Your task to perform on an android device: delete location history Image 0: 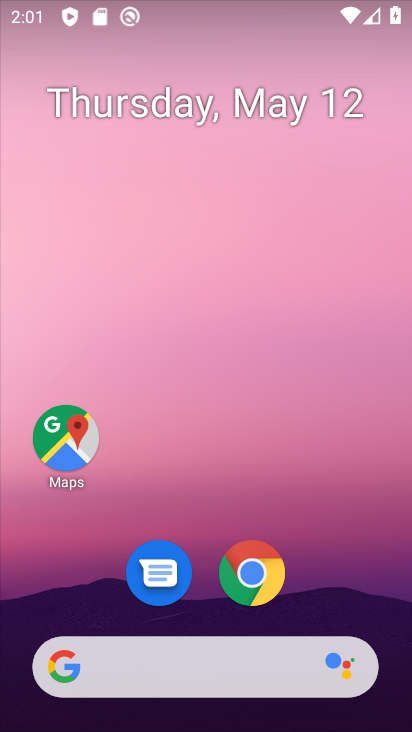
Step 0: click (229, 66)
Your task to perform on an android device: delete location history Image 1: 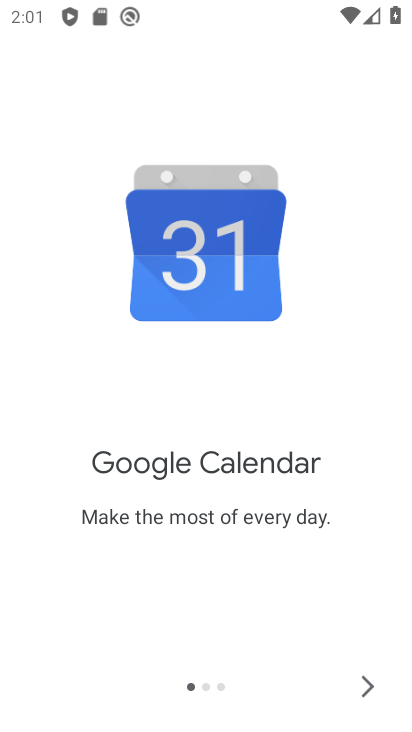
Step 1: press home button
Your task to perform on an android device: delete location history Image 2: 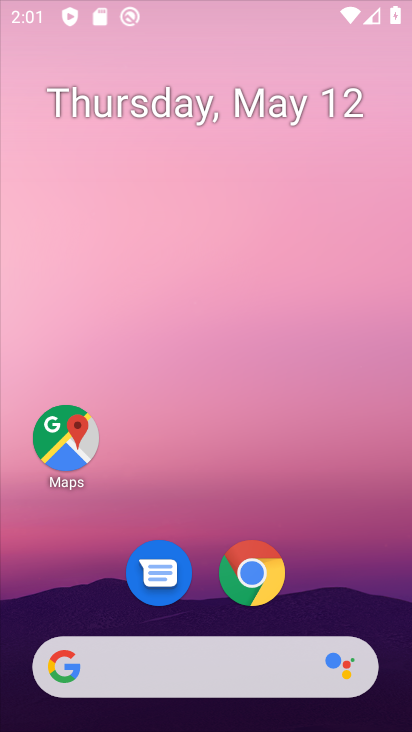
Step 2: drag from (193, 643) to (317, 35)
Your task to perform on an android device: delete location history Image 3: 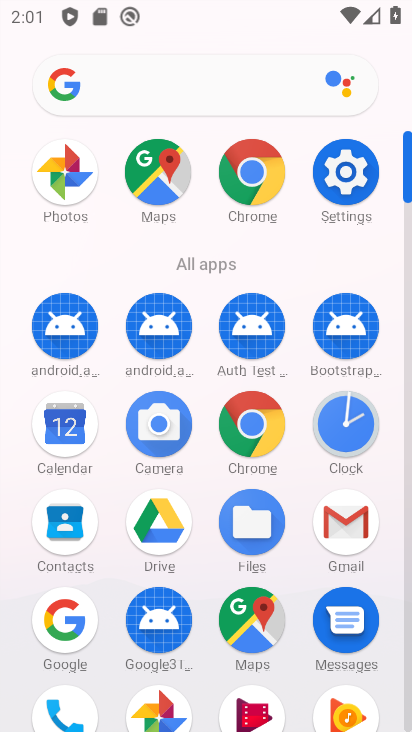
Step 3: drag from (202, 661) to (203, 263)
Your task to perform on an android device: delete location history Image 4: 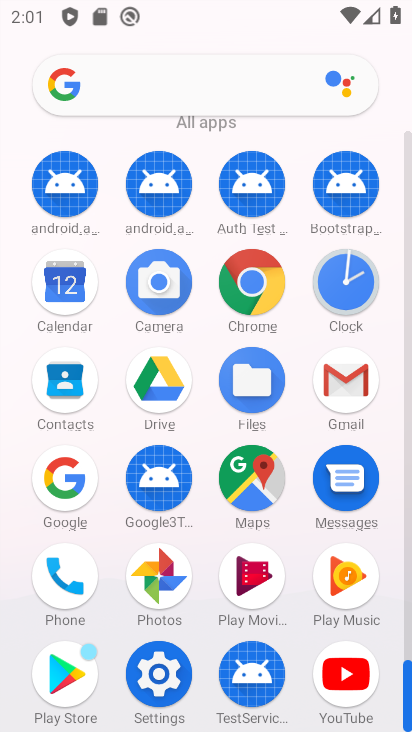
Step 4: click (161, 671)
Your task to perform on an android device: delete location history Image 5: 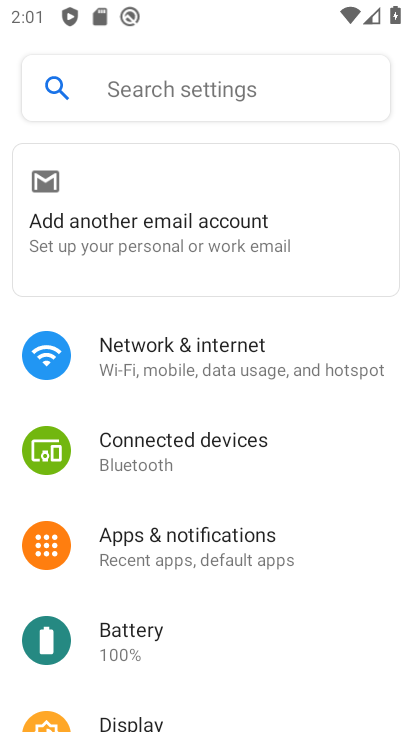
Step 5: drag from (211, 620) to (329, 156)
Your task to perform on an android device: delete location history Image 6: 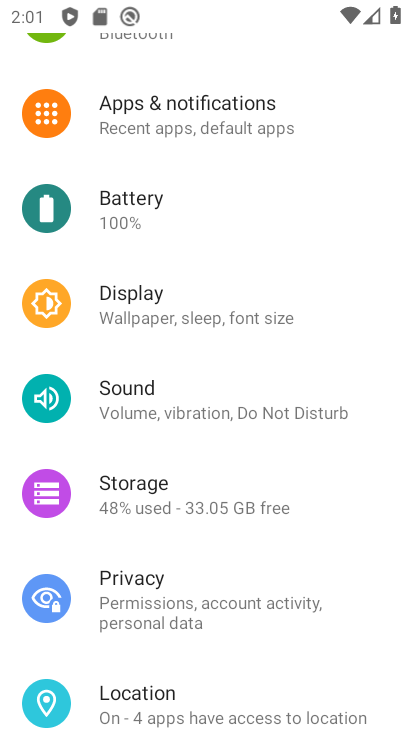
Step 6: drag from (276, 517) to (316, 124)
Your task to perform on an android device: delete location history Image 7: 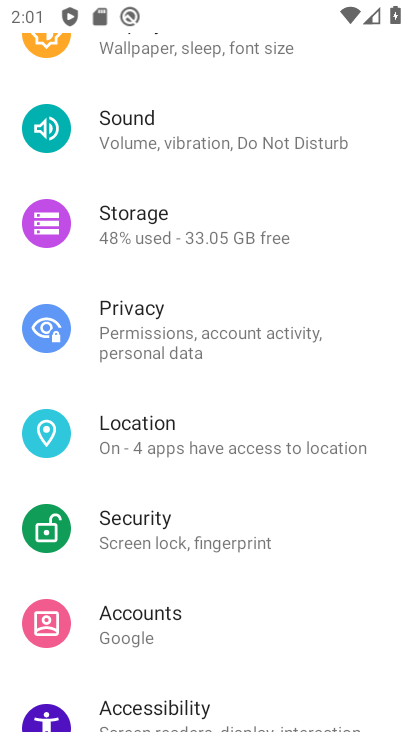
Step 7: click (187, 433)
Your task to perform on an android device: delete location history Image 8: 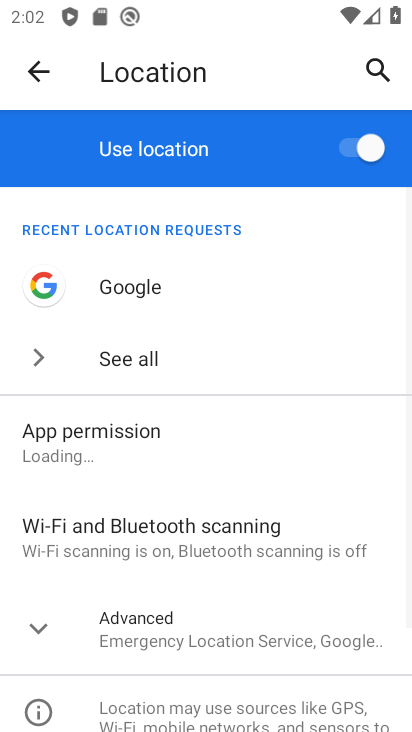
Step 8: drag from (232, 591) to (361, 122)
Your task to perform on an android device: delete location history Image 9: 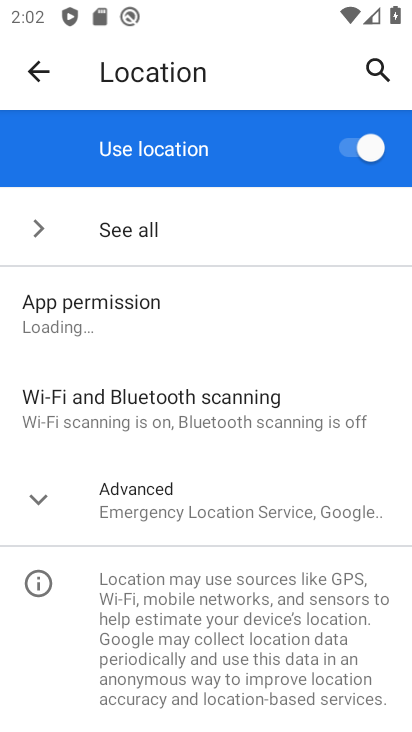
Step 9: click (190, 514)
Your task to perform on an android device: delete location history Image 10: 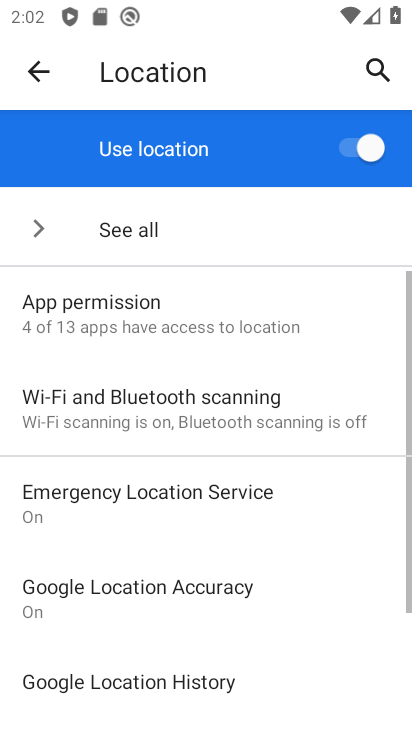
Step 10: drag from (229, 518) to (330, 148)
Your task to perform on an android device: delete location history Image 11: 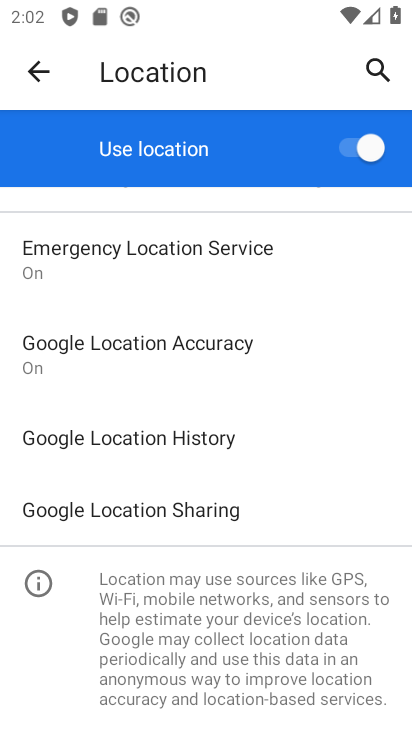
Step 11: click (221, 445)
Your task to perform on an android device: delete location history Image 12: 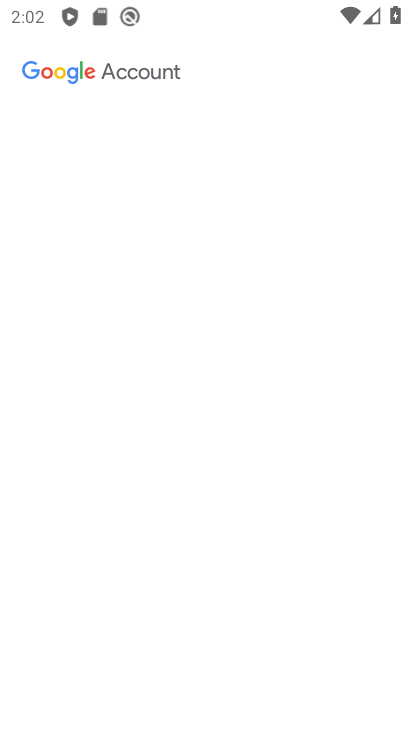
Step 12: drag from (232, 550) to (313, 186)
Your task to perform on an android device: delete location history Image 13: 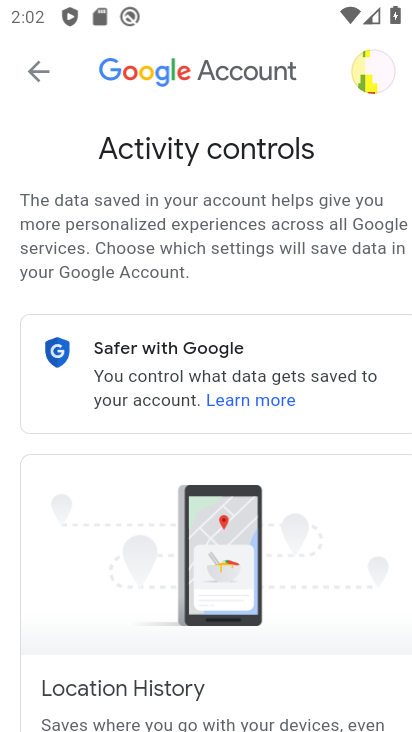
Step 13: drag from (196, 552) to (273, 25)
Your task to perform on an android device: delete location history Image 14: 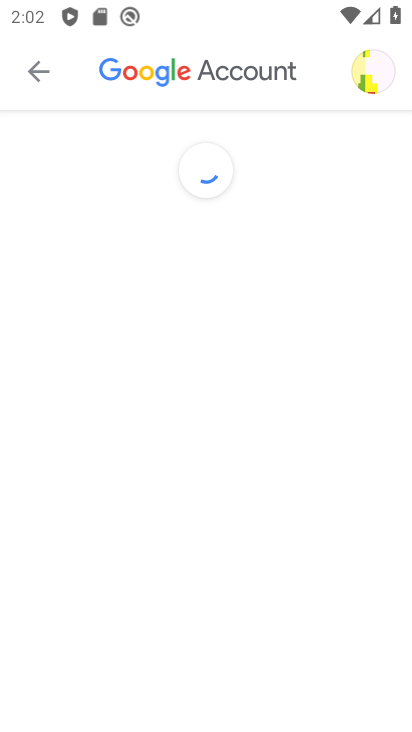
Step 14: drag from (242, 380) to (290, 39)
Your task to perform on an android device: delete location history Image 15: 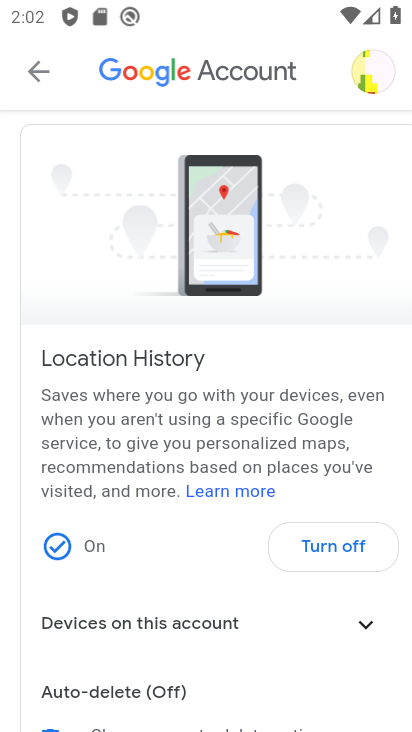
Step 15: drag from (204, 596) to (226, 325)
Your task to perform on an android device: delete location history Image 16: 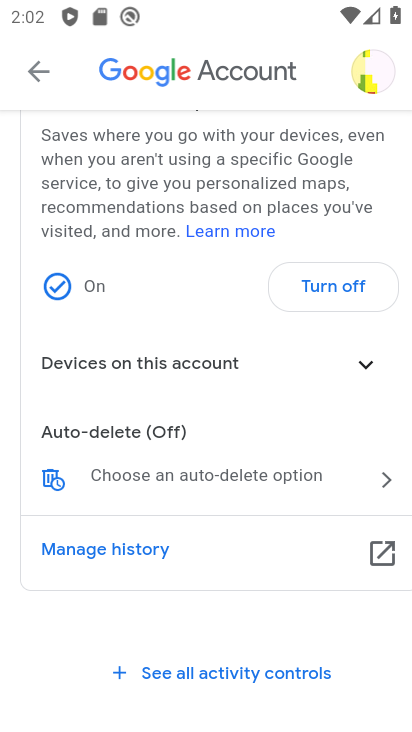
Step 16: click (64, 473)
Your task to perform on an android device: delete location history Image 17: 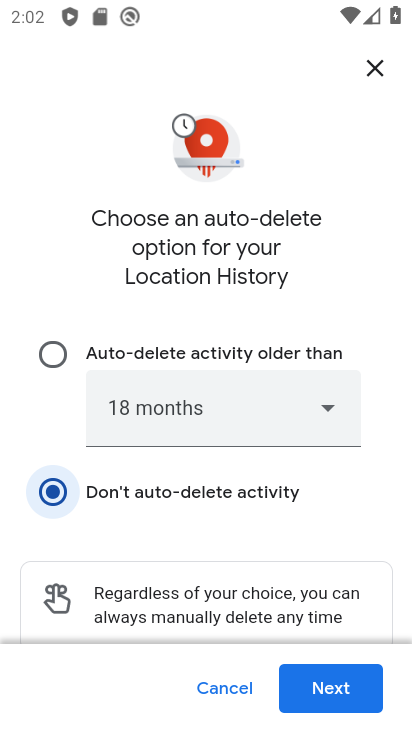
Step 17: click (298, 680)
Your task to perform on an android device: delete location history Image 18: 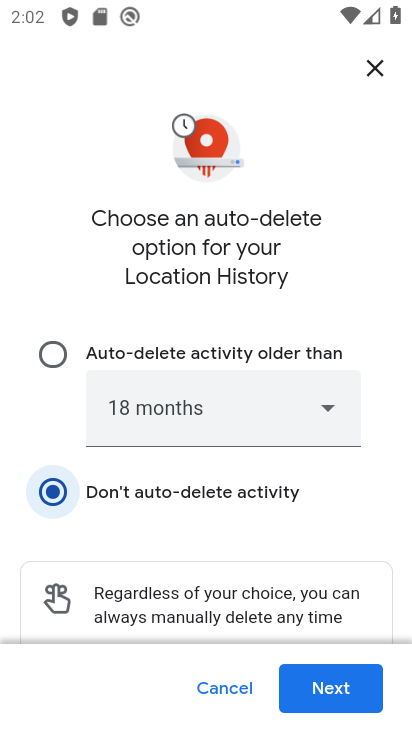
Step 18: click (299, 680)
Your task to perform on an android device: delete location history Image 19: 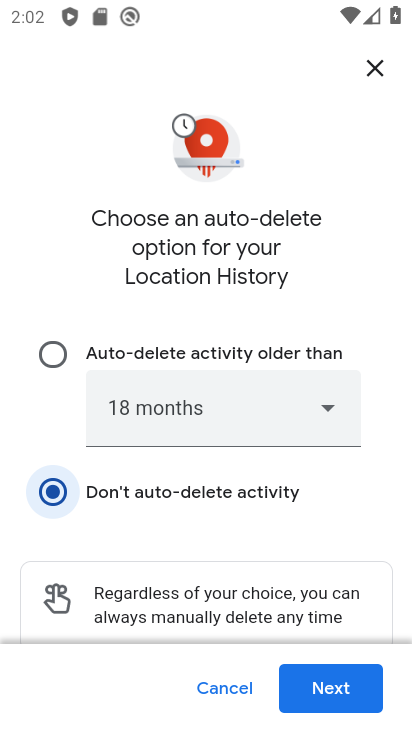
Step 19: click (315, 680)
Your task to perform on an android device: delete location history Image 20: 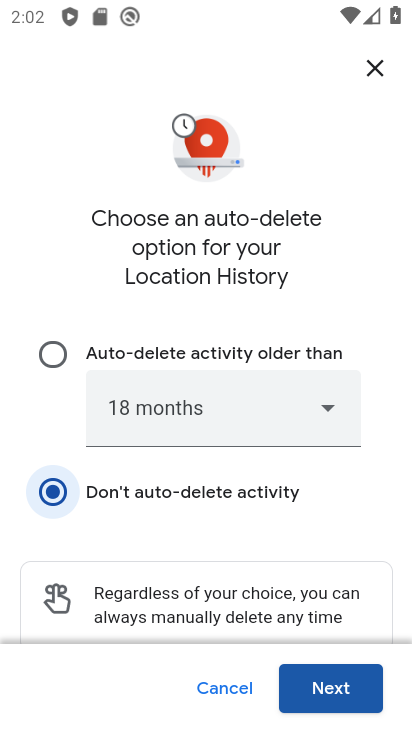
Step 20: click (315, 680)
Your task to perform on an android device: delete location history Image 21: 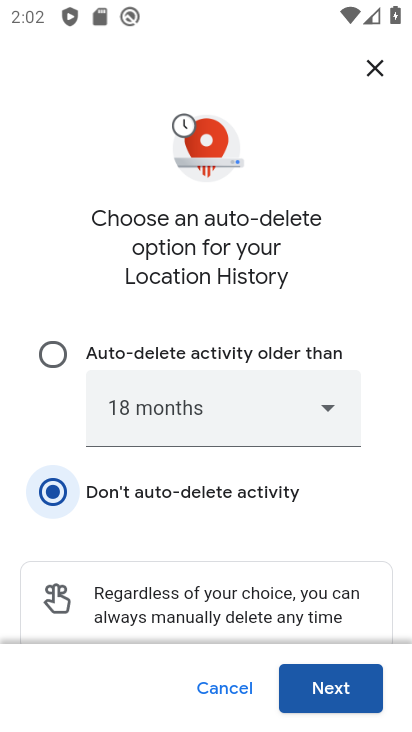
Step 21: click (315, 680)
Your task to perform on an android device: delete location history Image 22: 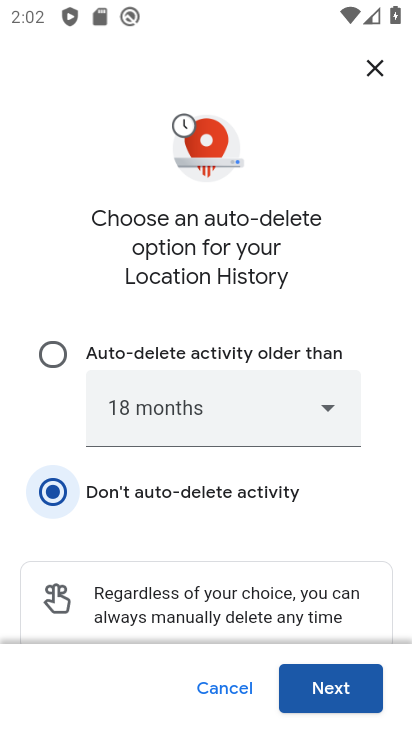
Step 22: click (315, 680)
Your task to perform on an android device: delete location history Image 23: 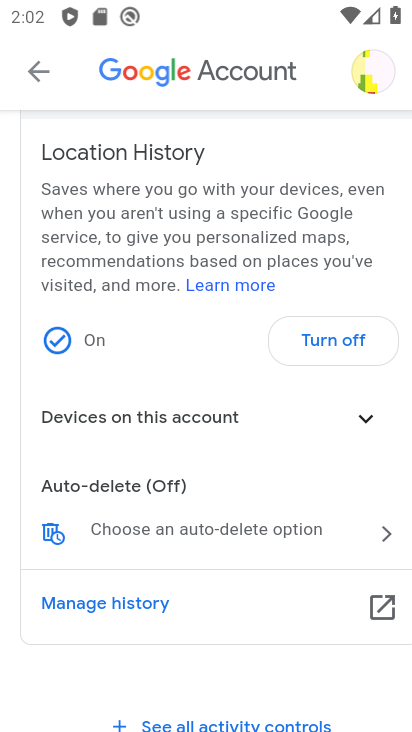
Step 23: task complete